Your task to perform on an android device: check data usage Image 0: 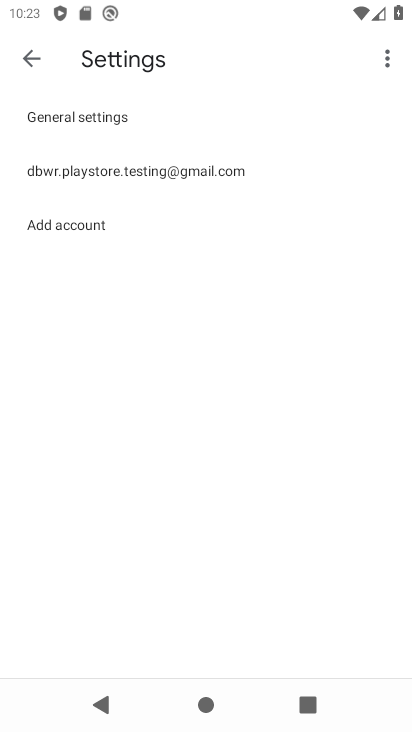
Step 0: press home button
Your task to perform on an android device: check data usage Image 1: 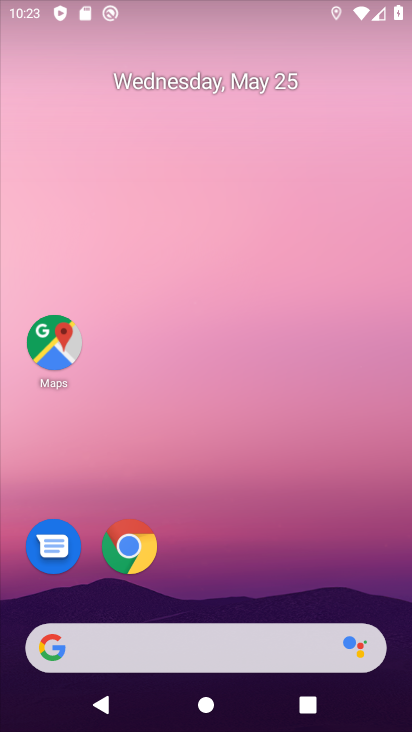
Step 1: drag from (271, 556) to (275, 8)
Your task to perform on an android device: check data usage Image 2: 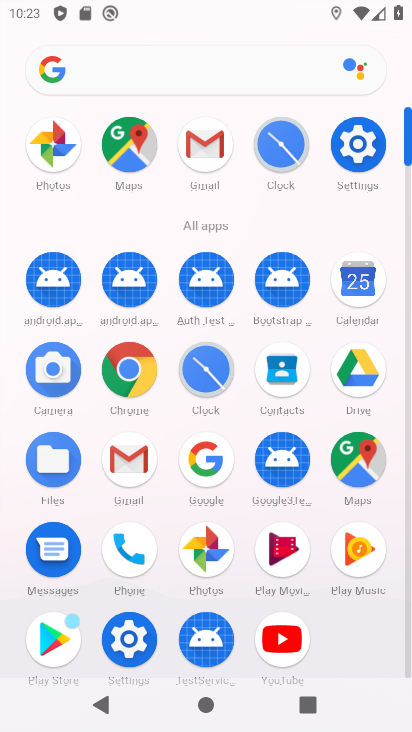
Step 2: click (346, 160)
Your task to perform on an android device: check data usage Image 3: 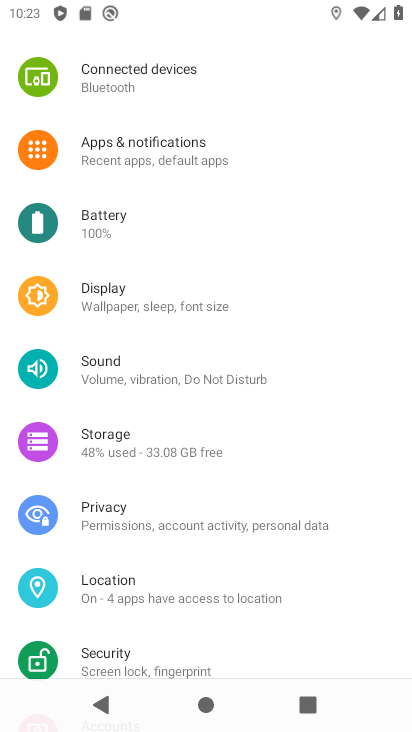
Step 3: drag from (184, 119) to (160, 612)
Your task to perform on an android device: check data usage Image 4: 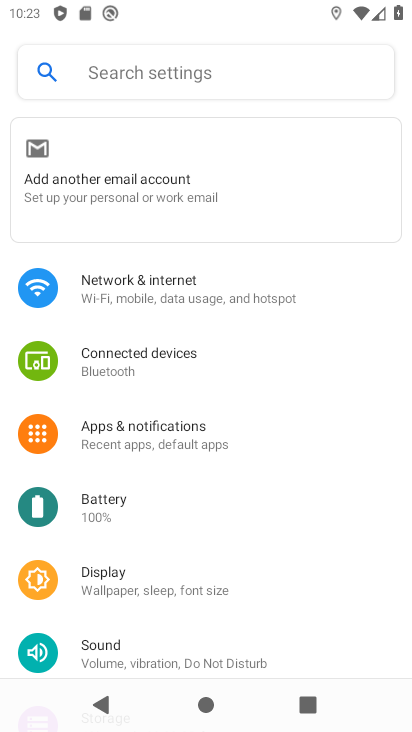
Step 4: click (138, 282)
Your task to perform on an android device: check data usage Image 5: 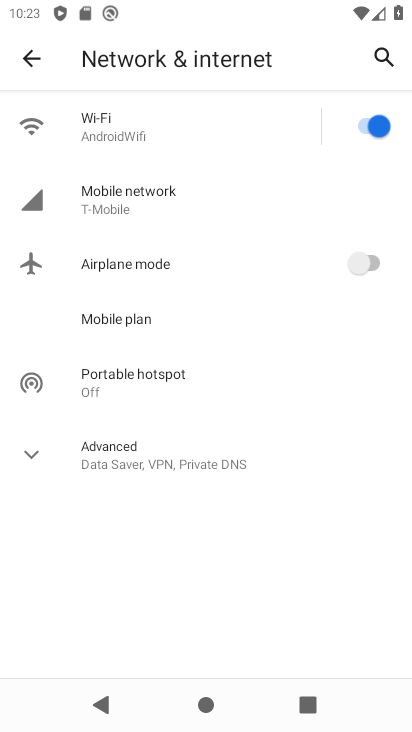
Step 5: click (104, 200)
Your task to perform on an android device: check data usage Image 6: 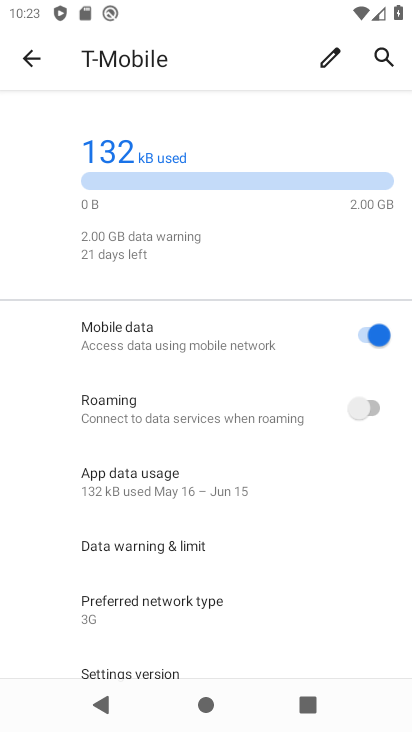
Step 6: click (133, 485)
Your task to perform on an android device: check data usage Image 7: 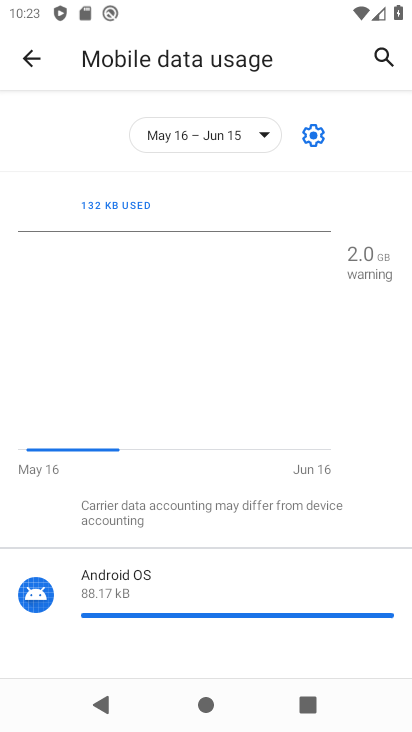
Step 7: task complete